Your task to perform on an android device: see sites visited before in the chrome app Image 0: 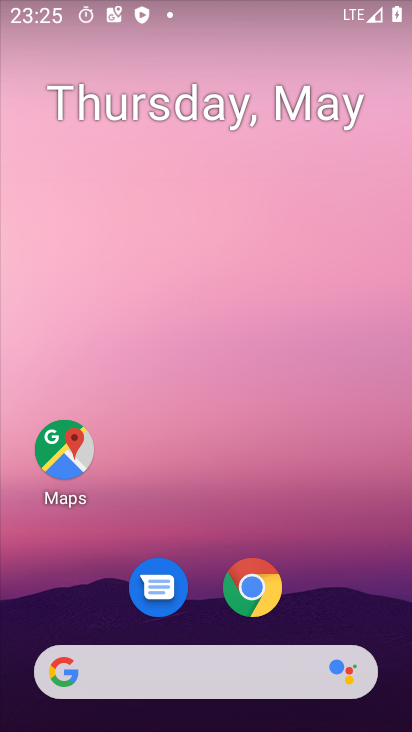
Step 0: click (243, 595)
Your task to perform on an android device: see sites visited before in the chrome app Image 1: 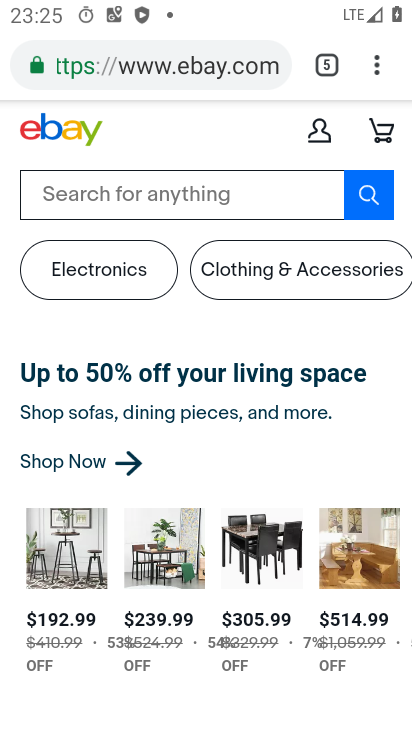
Step 1: click (374, 68)
Your task to perform on an android device: see sites visited before in the chrome app Image 2: 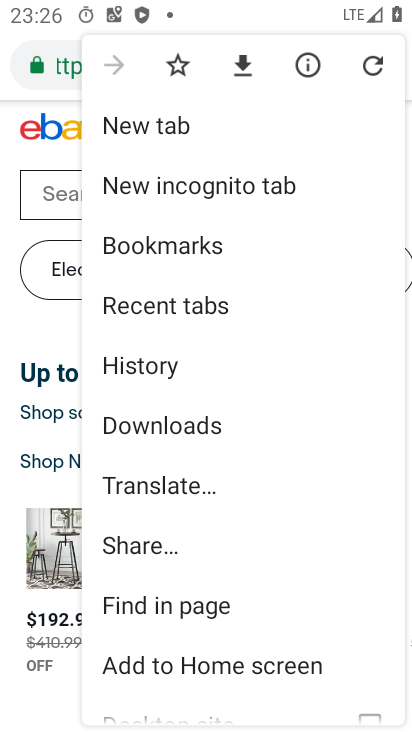
Step 2: click (127, 367)
Your task to perform on an android device: see sites visited before in the chrome app Image 3: 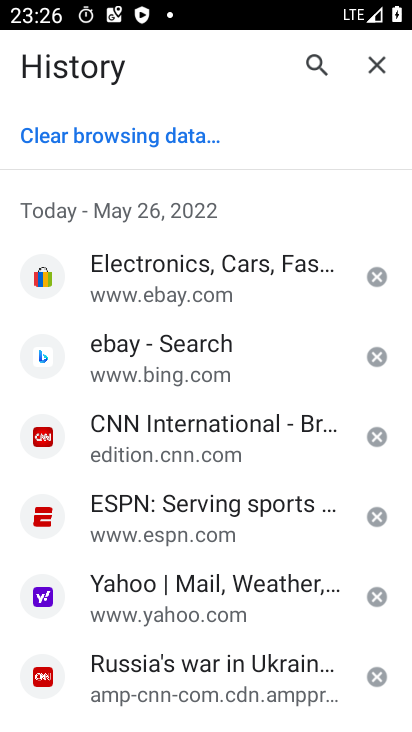
Step 3: task complete